Your task to perform on an android device: Show me productivity apps on the Play Store Image 0: 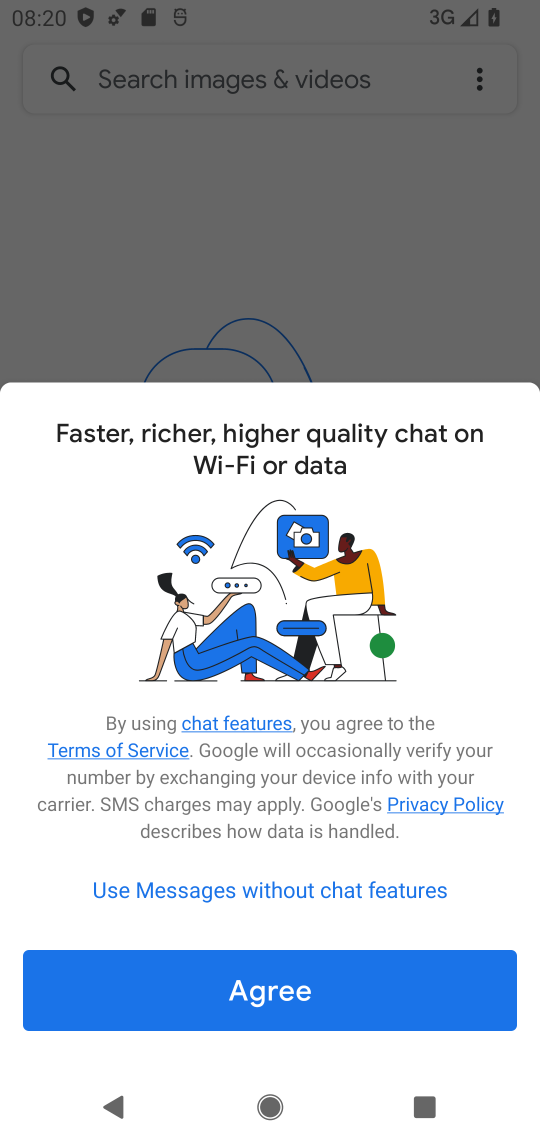
Step 0: press home button
Your task to perform on an android device: Show me productivity apps on the Play Store Image 1: 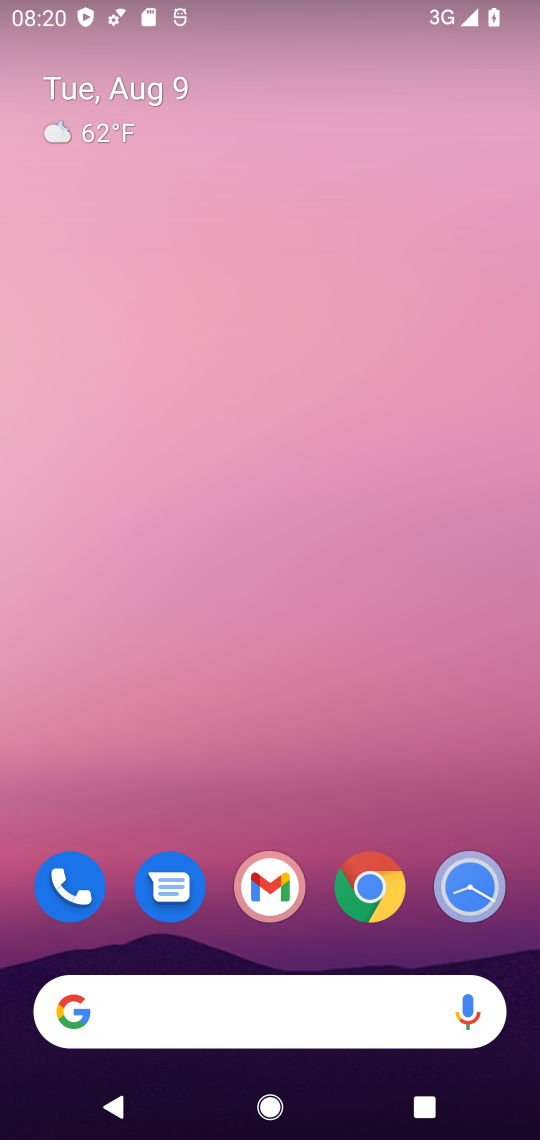
Step 1: drag from (322, 790) to (349, 0)
Your task to perform on an android device: Show me productivity apps on the Play Store Image 2: 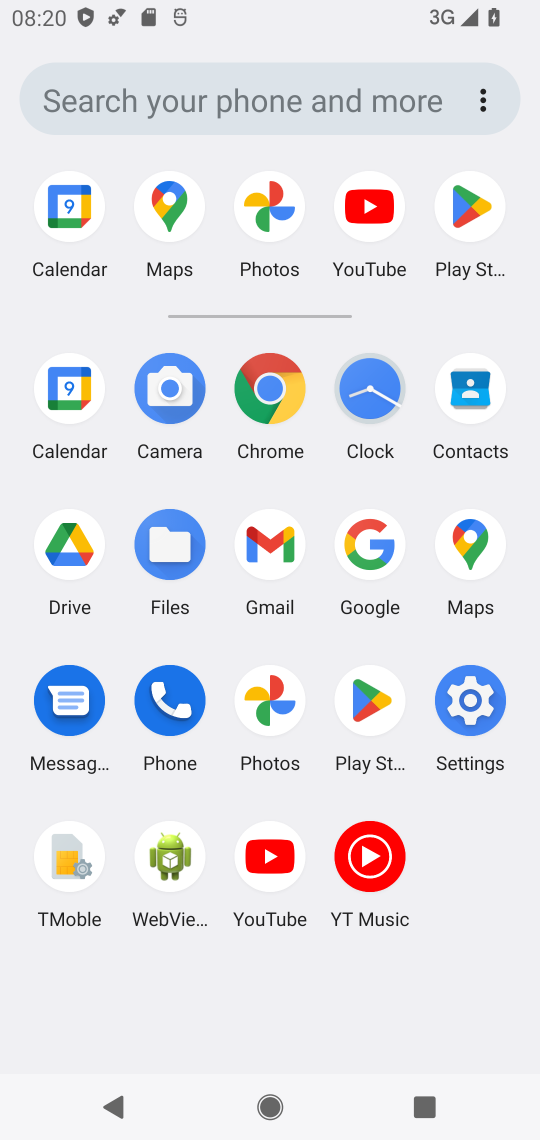
Step 2: click (372, 697)
Your task to perform on an android device: Show me productivity apps on the Play Store Image 3: 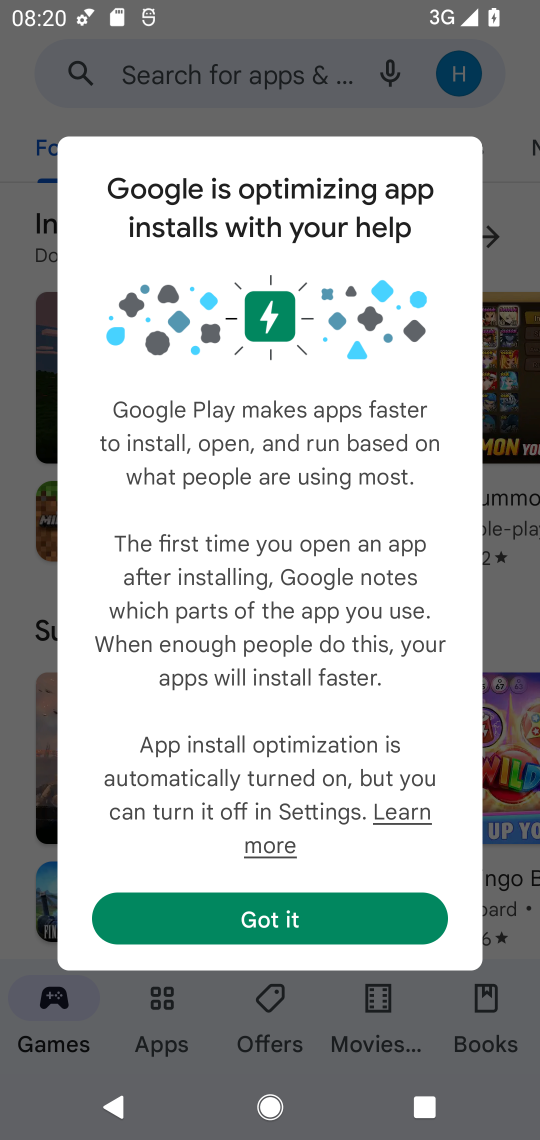
Step 3: click (381, 913)
Your task to perform on an android device: Show me productivity apps on the Play Store Image 4: 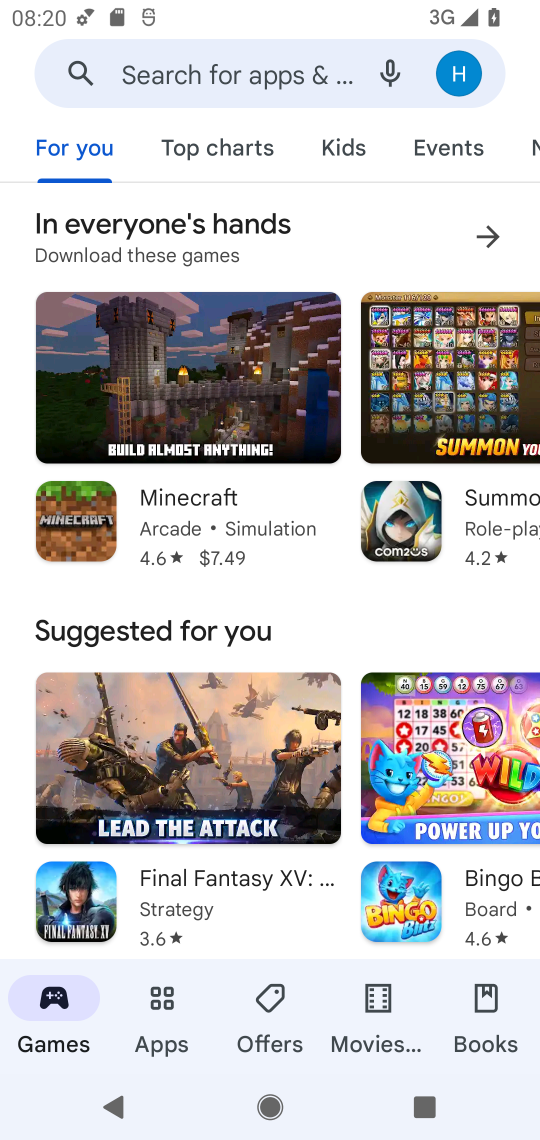
Step 4: click (169, 993)
Your task to perform on an android device: Show me productivity apps on the Play Store Image 5: 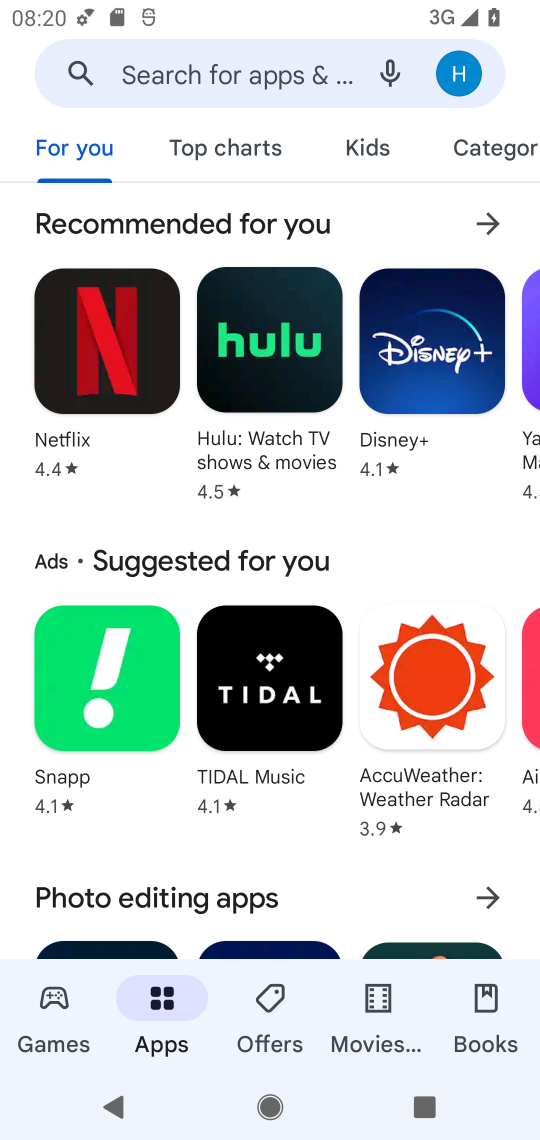
Step 5: click (497, 144)
Your task to perform on an android device: Show me productivity apps on the Play Store Image 6: 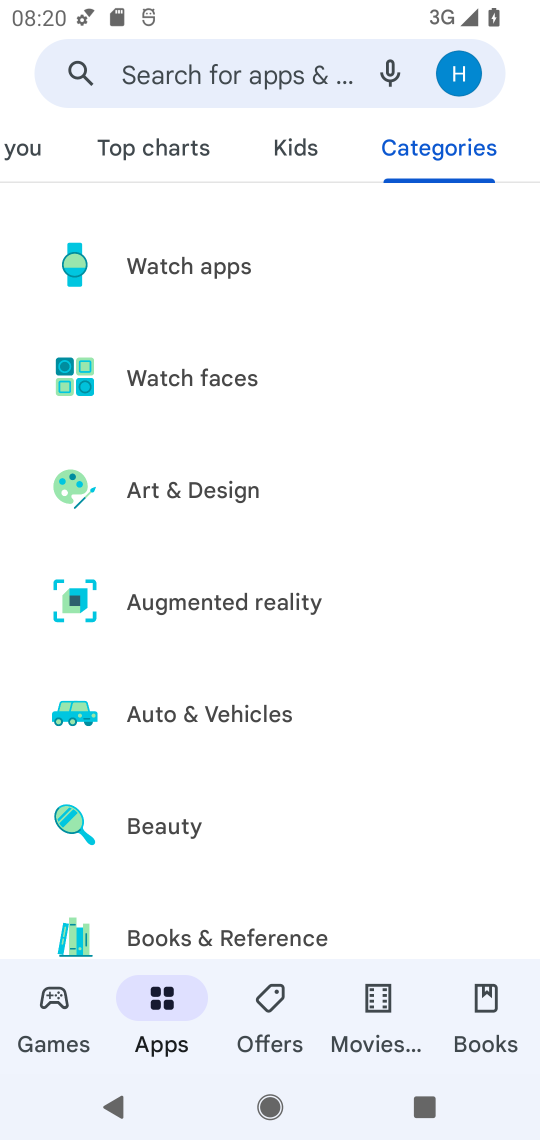
Step 6: drag from (281, 801) to (313, 8)
Your task to perform on an android device: Show me productivity apps on the Play Store Image 7: 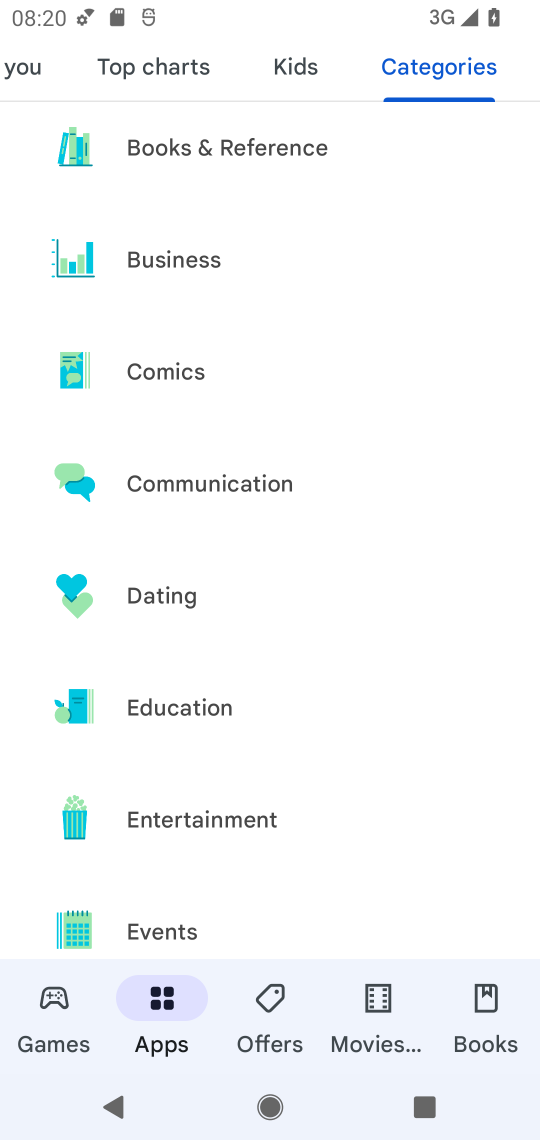
Step 7: drag from (279, 901) to (356, 0)
Your task to perform on an android device: Show me productivity apps on the Play Store Image 8: 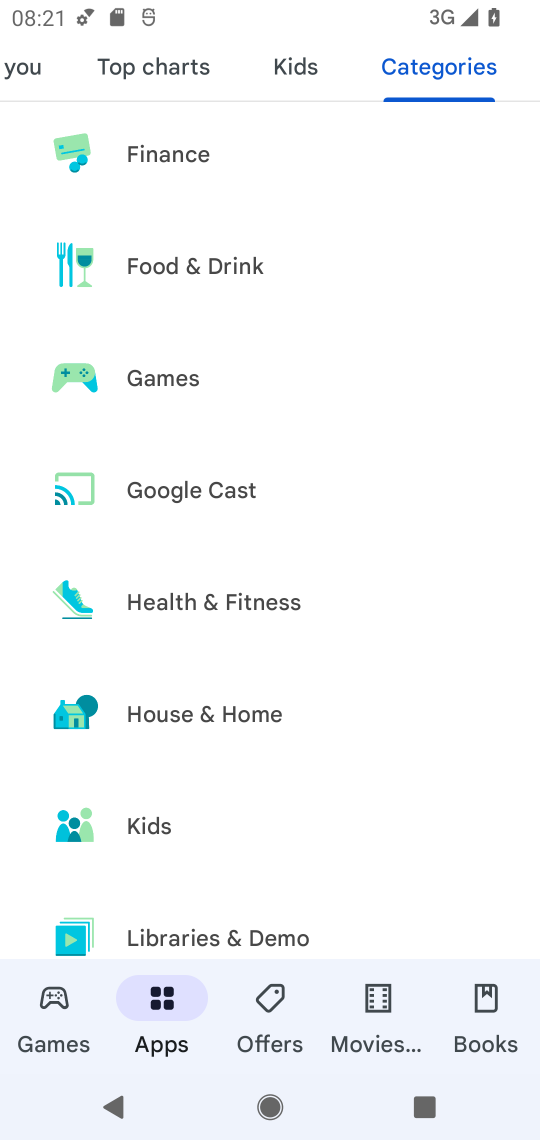
Step 8: drag from (315, 800) to (341, 9)
Your task to perform on an android device: Show me productivity apps on the Play Store Image 9: 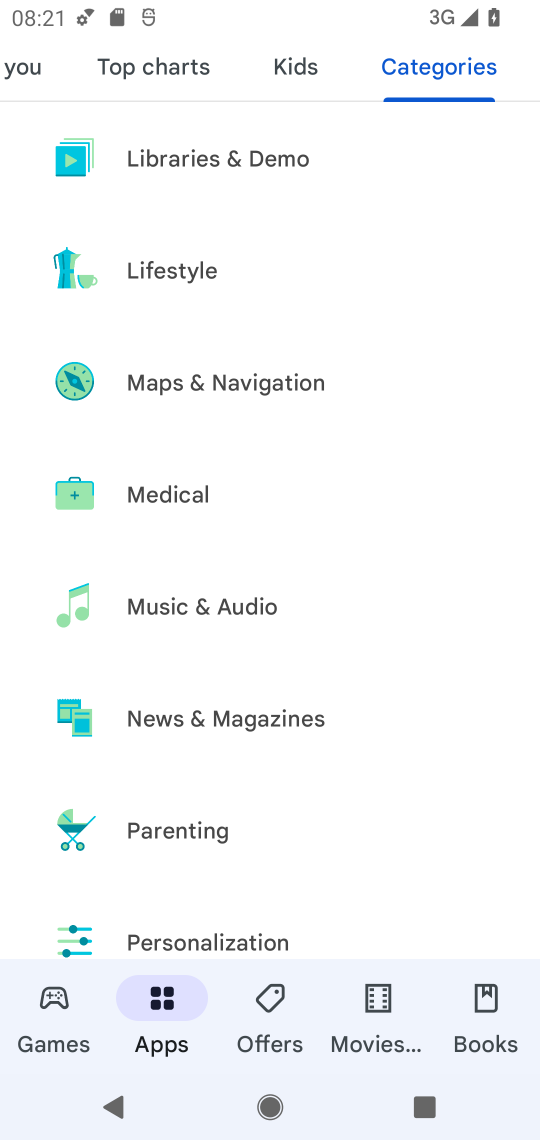
Step 9: drag from (262, 888) to (247, 66)
Your task to perform on an android device: Show me productivity apps on the Play Store Image 10: 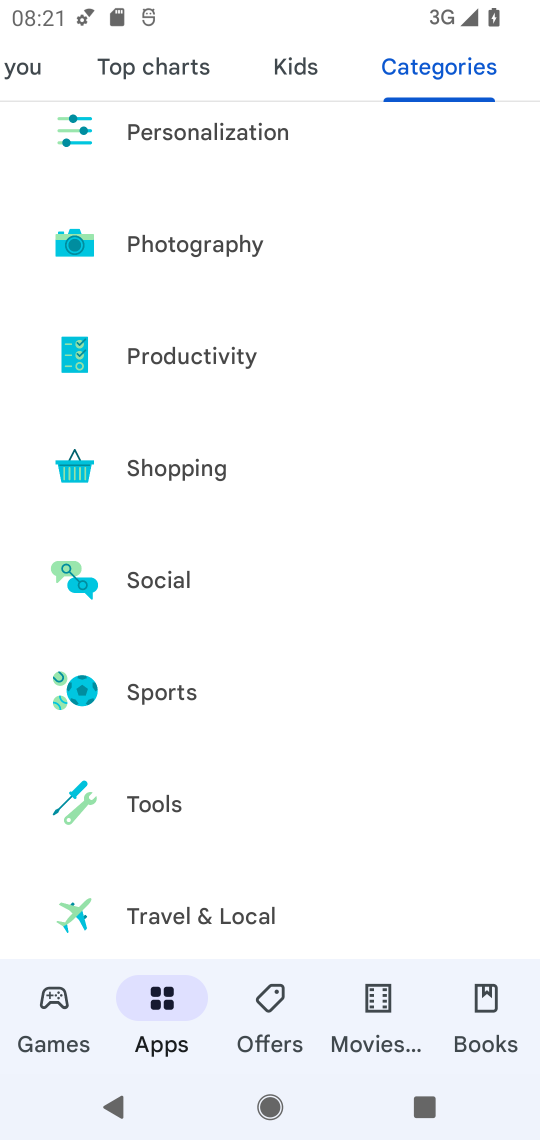
Step 10: click (241, 354)
Your task to perform on an android device: Show me productivity apps on the Play Store Image 11: 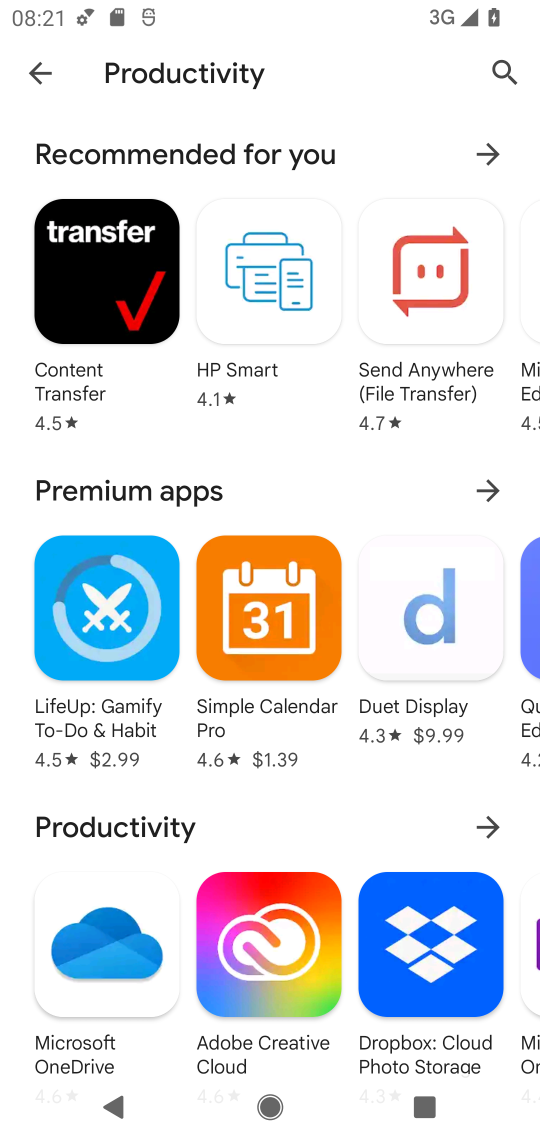
Step 11: click (483, 819)
Your task to perform on an android device: Show me productivity apps on the Play Store Image 12: 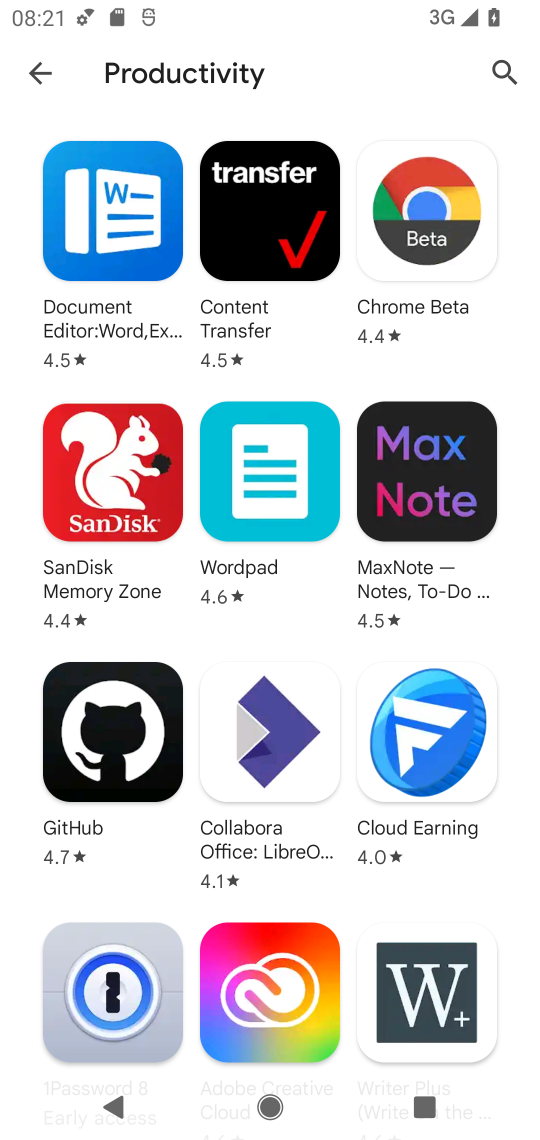
Step 12: task complete